Your task to perform on an android device: Show me productivity apps on the Play Store Image 0: 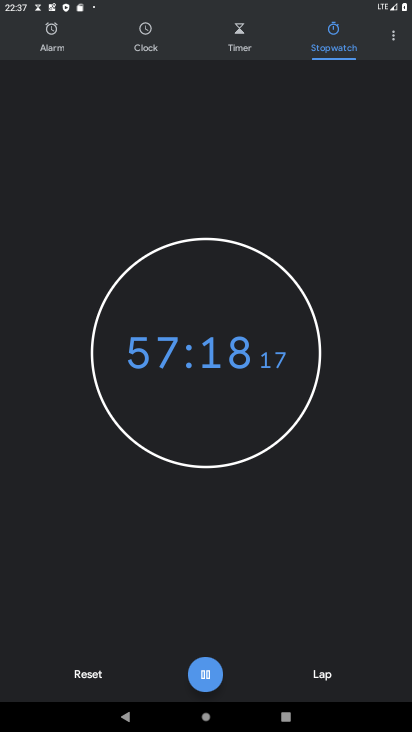
Step 0: press home button
Your task to perform on an android device: Show me productivity apps on the Play Store Image 1: 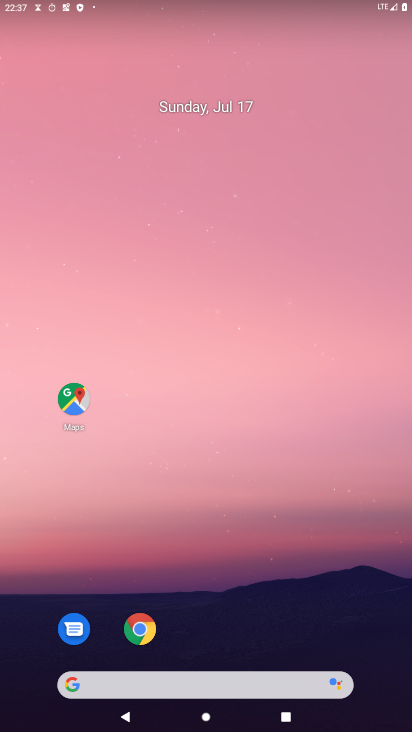
Step 1: drag from (240, 690) to (232, 72)
Your task to perform on an android device: Show me productivity apps on the Play Store Image 2: 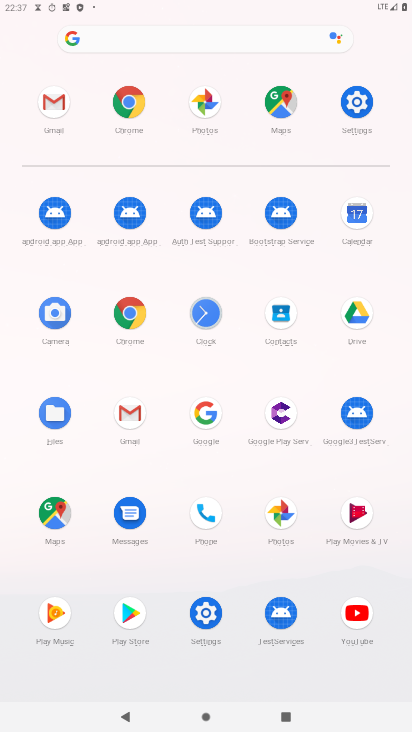
Step 2: click (130, 613)
Your task to perform on an android device: Show me productivity apps on the Play Store Image 3: 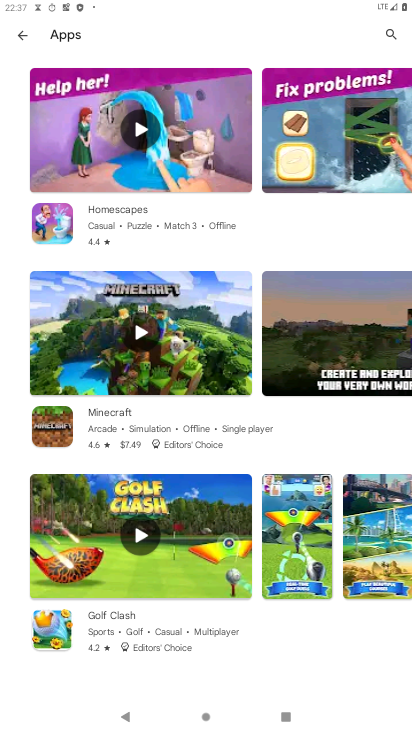
Step 3: click (23, 35)
Your task to perform on an android device: Show me productivity apps on the Play Store Image 4: 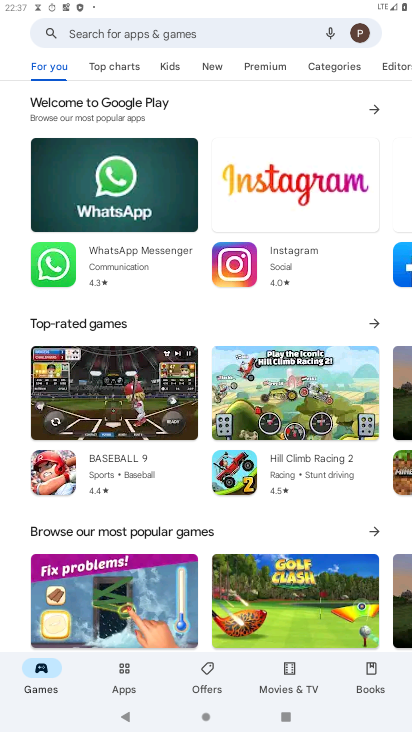
Step 4: click (124, 672)
Your task to perform on an android device: Show me productivity apps on the Play Store Image 5: 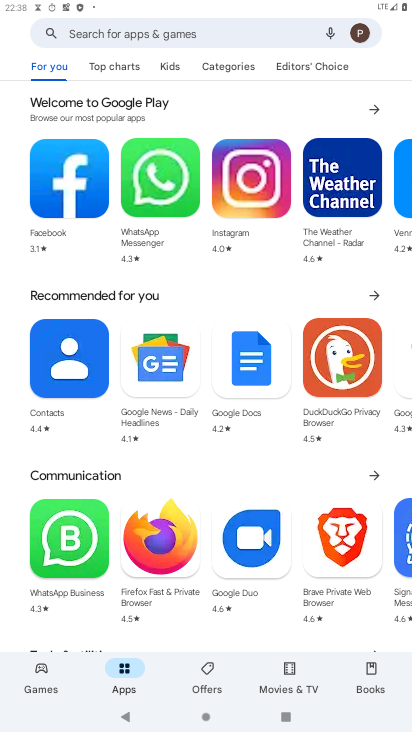
Step 5: click (226, 62)
Your task to perform on an android device: Show me productivity apps on the Play Store Image 6: 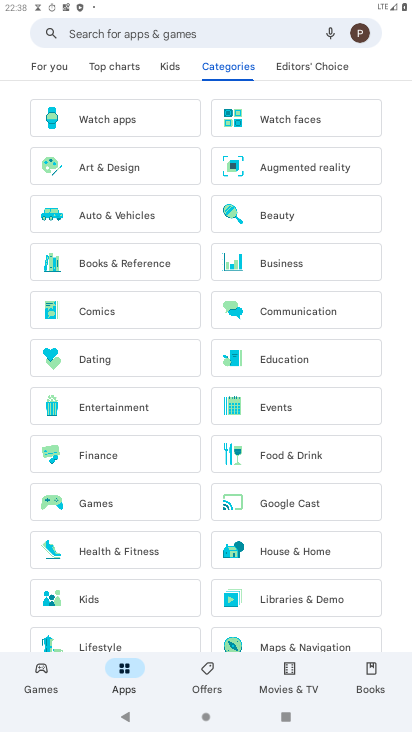
Step 6: drag from (175, 604) to (164, 315)
Your task to perform on an android device: Show me productivity apps on the Play Store Image 7: 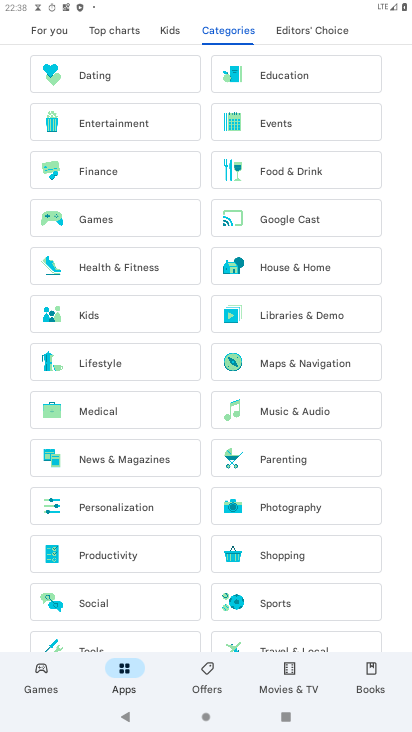
Step 7: click (126, 554)
Your task to perform on an android device: Show me productivity apps on the Play Store Image 8: 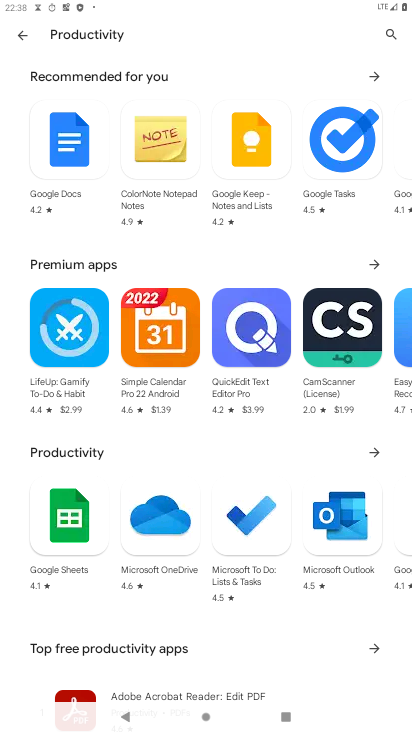
Step 8: task complete